Your task to perform on an android device: change keyboard looks Image 0: 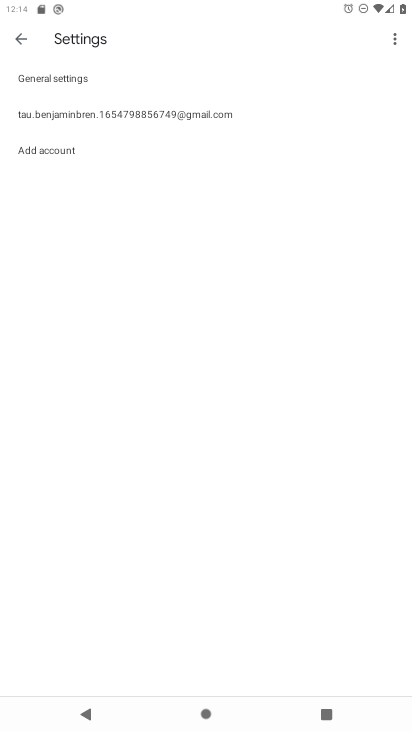
Step 0: drag from (362, 624) to (374, 567)
Your task to perform on an android device: change keyboard looks Image 1: 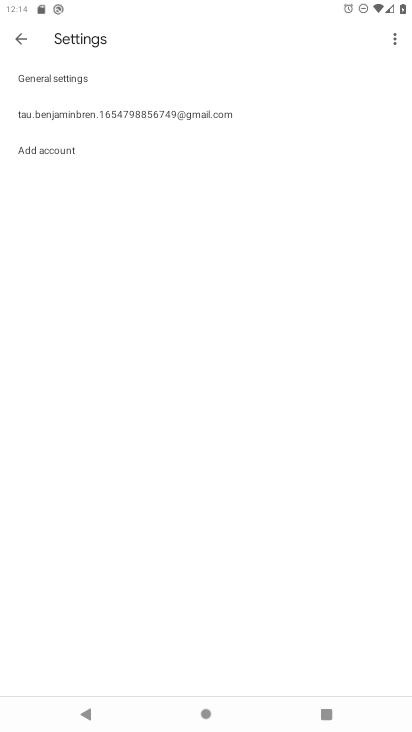
Step 1: press home button
Your task to perform on an android device: change keyboard looks Image 2: 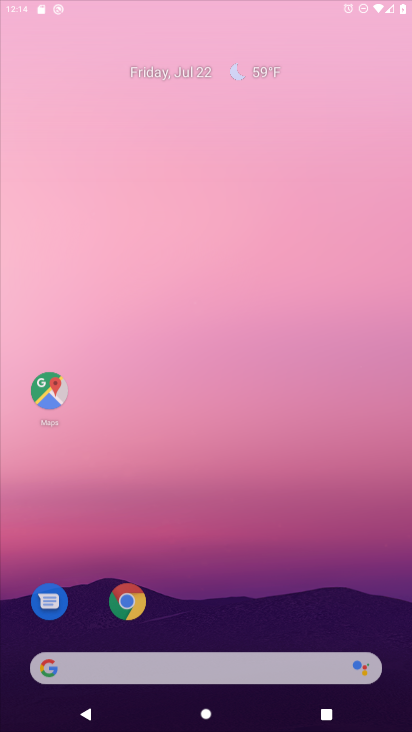
Step 2: drag from (387, 672) to (195, 39)
Your task to perform on an android device: change keyboard looks Image 3: 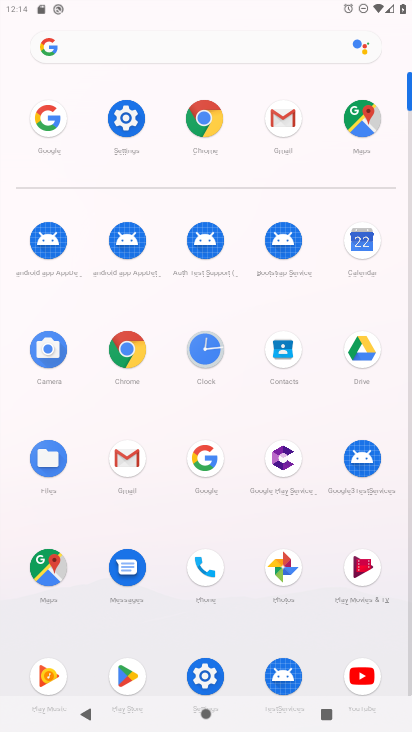
Step 3: click (195, 659)
Your task to perform on an android device: change keyboard looks Image 4: 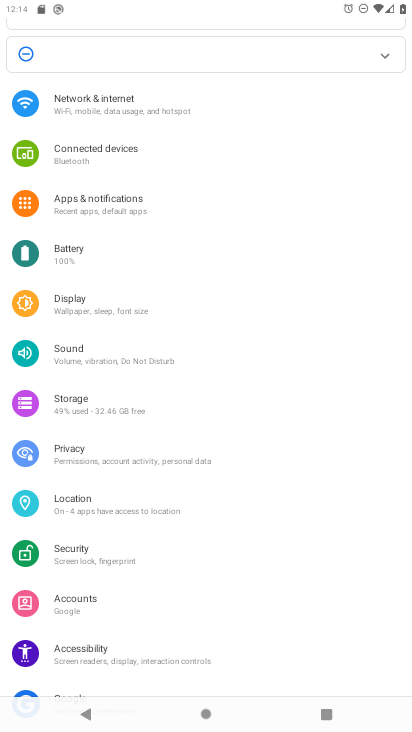
Step 4: drag from (127, 694) to (216, 24)
Your task to perform on an android device: change keyboard looks Image 5: 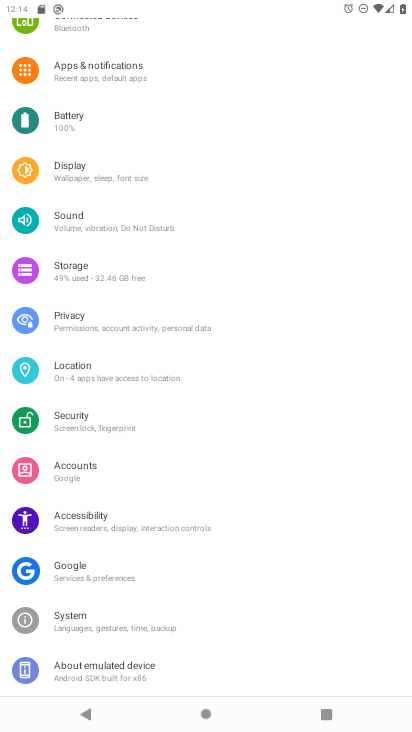
Step 5: click (95, 638)
Your task to perform on an android device: change keyboard looks Image 6: 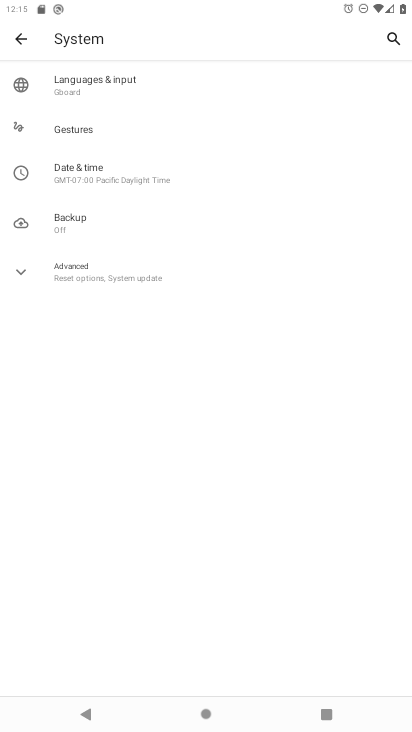
Step 6: click (114, 78)
Your task to perform on an android device: change keyboard looks Image 7: 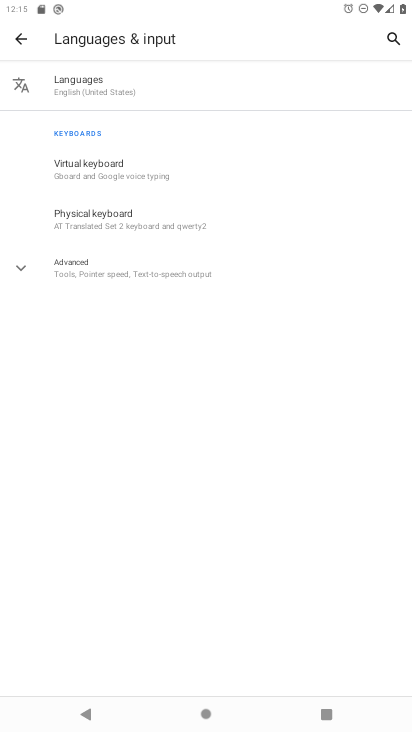
Step 7: click (64, 156)
Your task to perform on an android device: change keyboard looks Image 8: 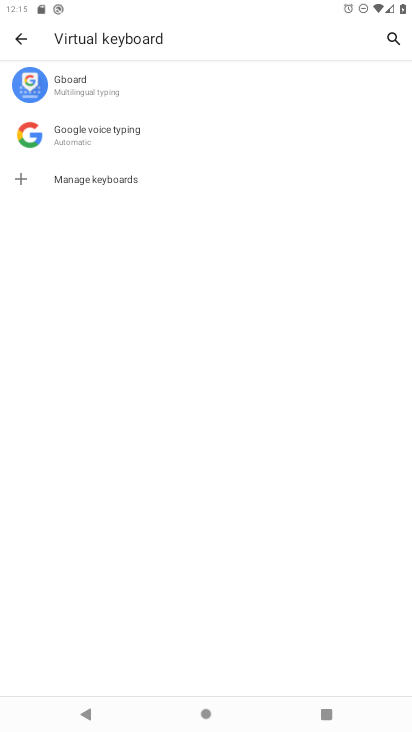
Step 8: click (90, 90)
Your task to perform on an android device: change keyboard looks Image 9: 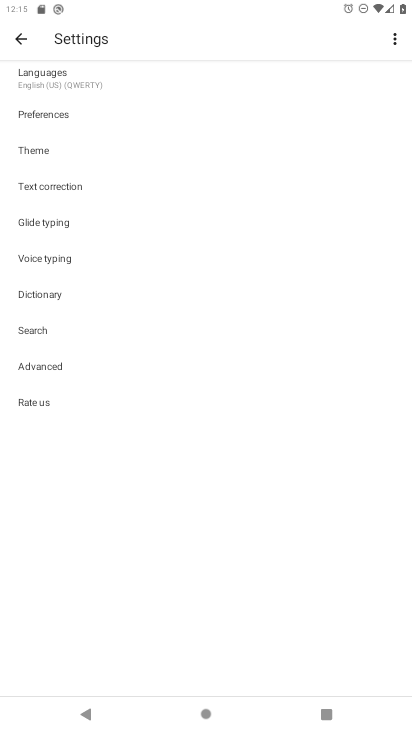
Step 9: click (43, 141)
Your task to perform on an android device: change keyboard looks Image 10: 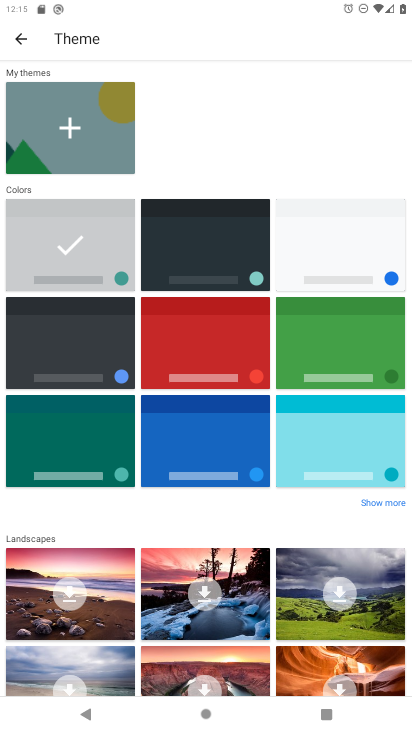
Step 10: click (198, 246)
Your task to perform on an android device: change keyboard looks Image 11: 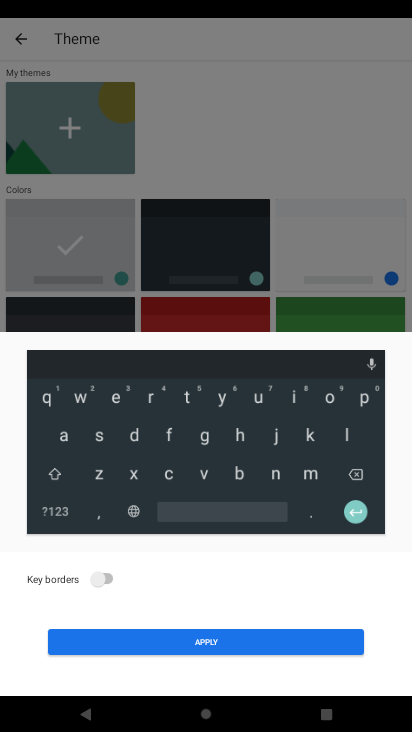
Step 11: click (204, 650)
Your task to perform on an android device: change keyboard looks Image 12: 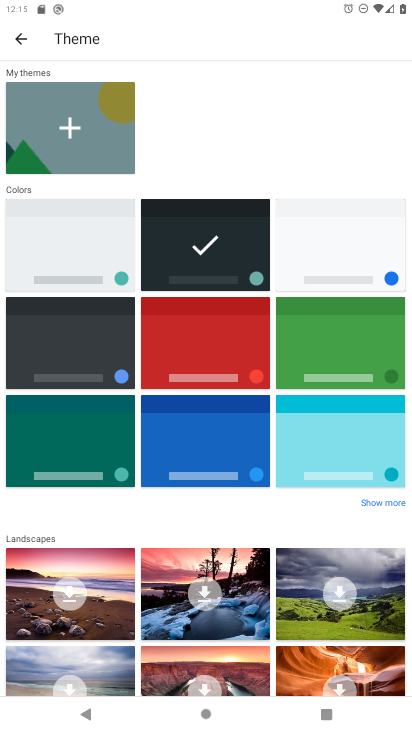
Step 12: task complete